Your task to perform on an android device: Show me productivity apps on the Play Store Image 0: 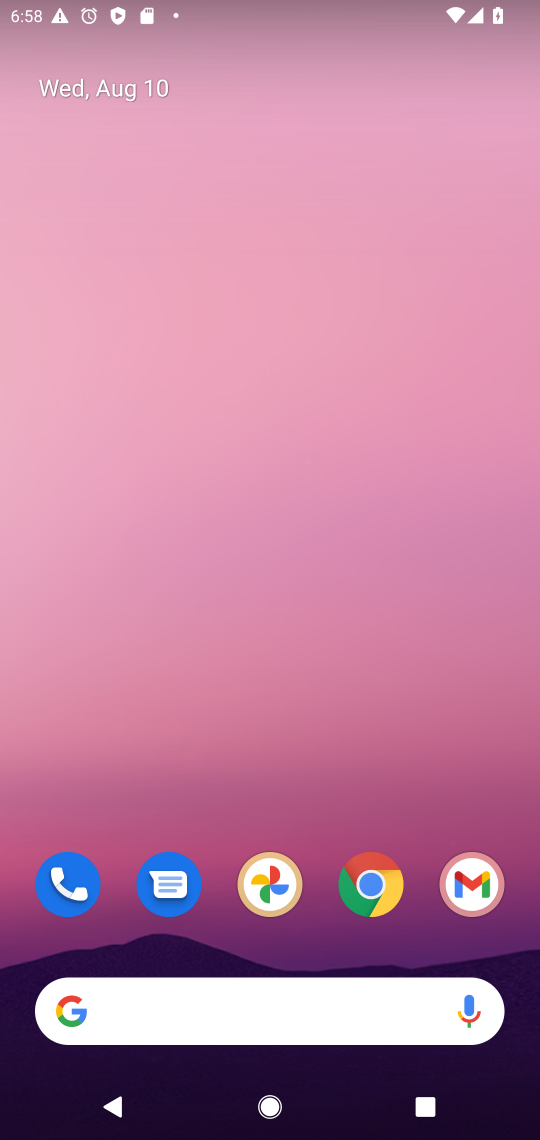
Step 0: drag from (75, 1089) to (404, 218)
Your task to perform on an android device: Show me productivity apps on the Play Store Image 1: 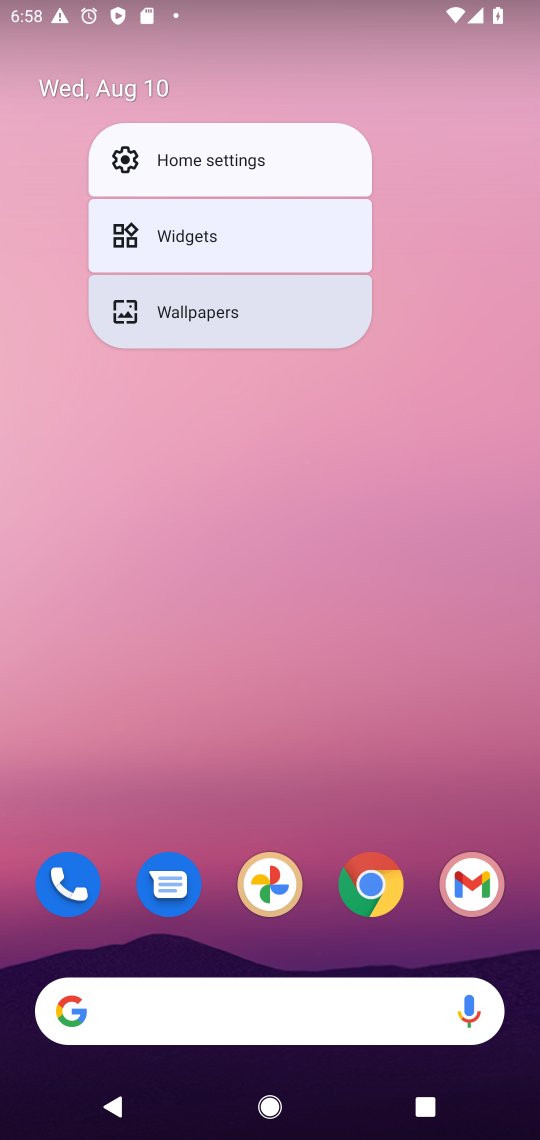
Step 1: drag from (39, 1061) to (452, 138)
Your task to perform on an android device: Show me productivity apps on the Play Store Image 2: 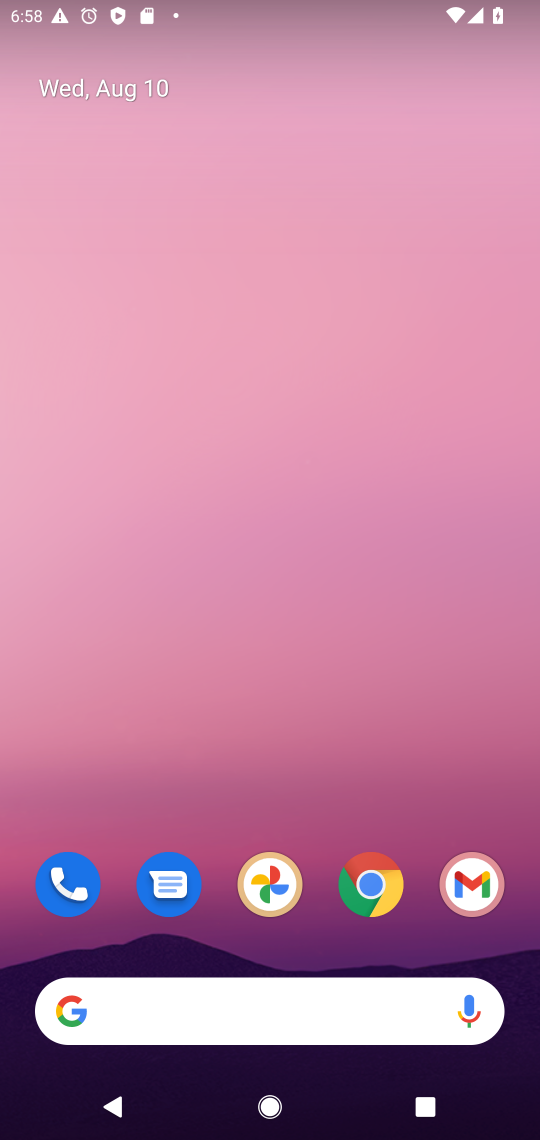
Step 2: drag from (45, 1090) to (350, 226)
Your task to perform on an android device: Show me productivity apps on the Play Store Image 3: 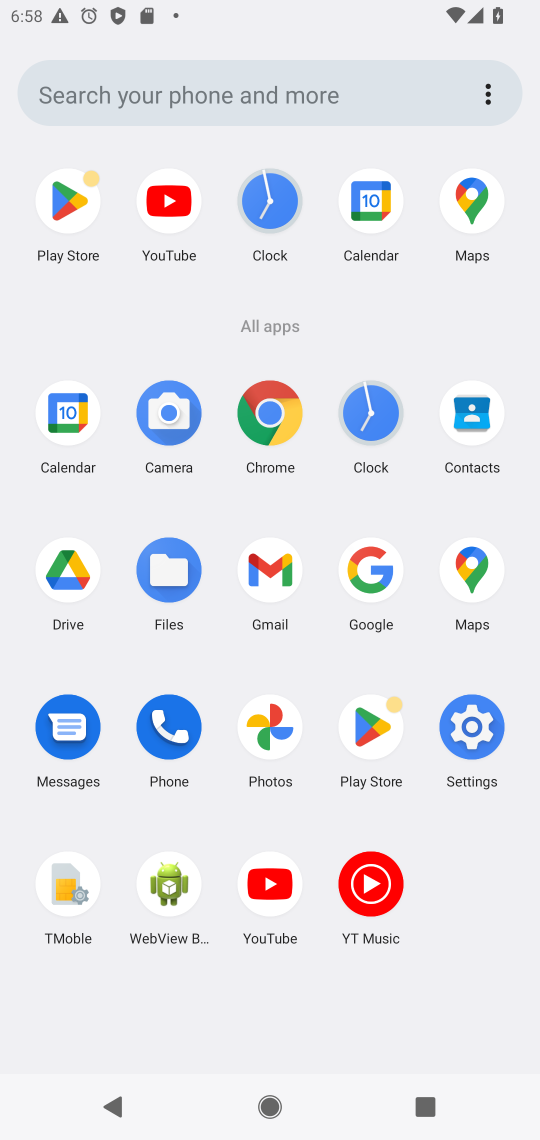
Step 3: click (71, 205)
Your task to perform on an android device: Show me productivity apps on the Play Store Image 4: 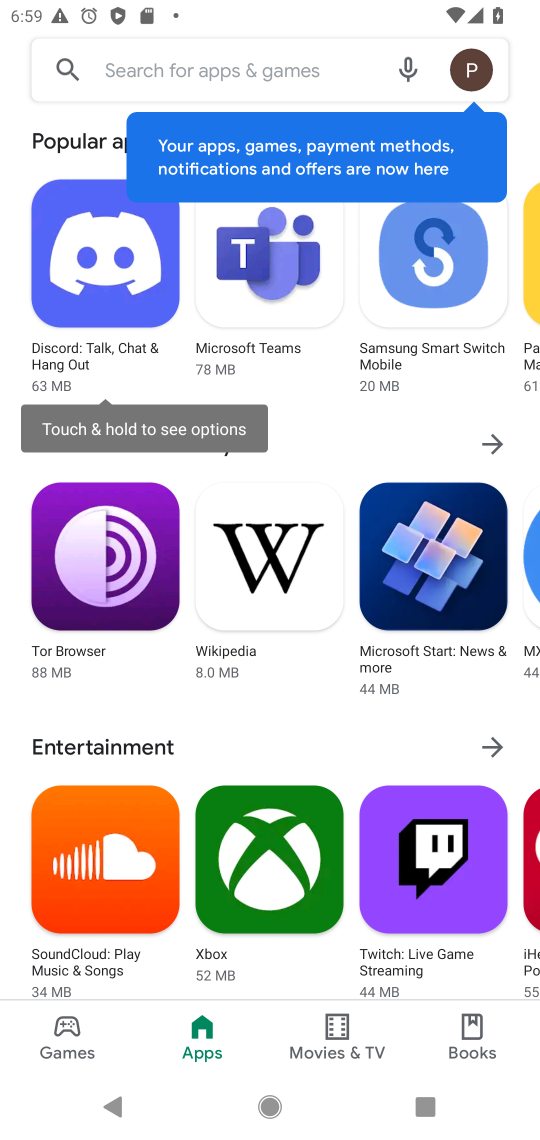
Step 4: click (134, 56)
Your task to perform on an android device: Show me productivity apps on the Play Store Image 5: 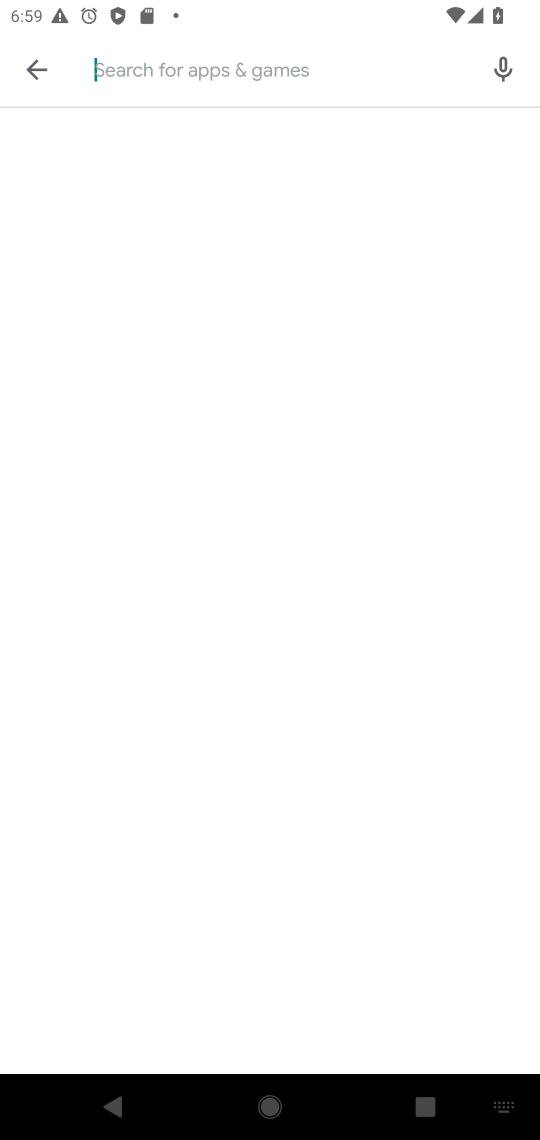
Step 5: type "productivity apps"
Your task to perform on an android device: Show me productivity apps on the Play Store Image 6: 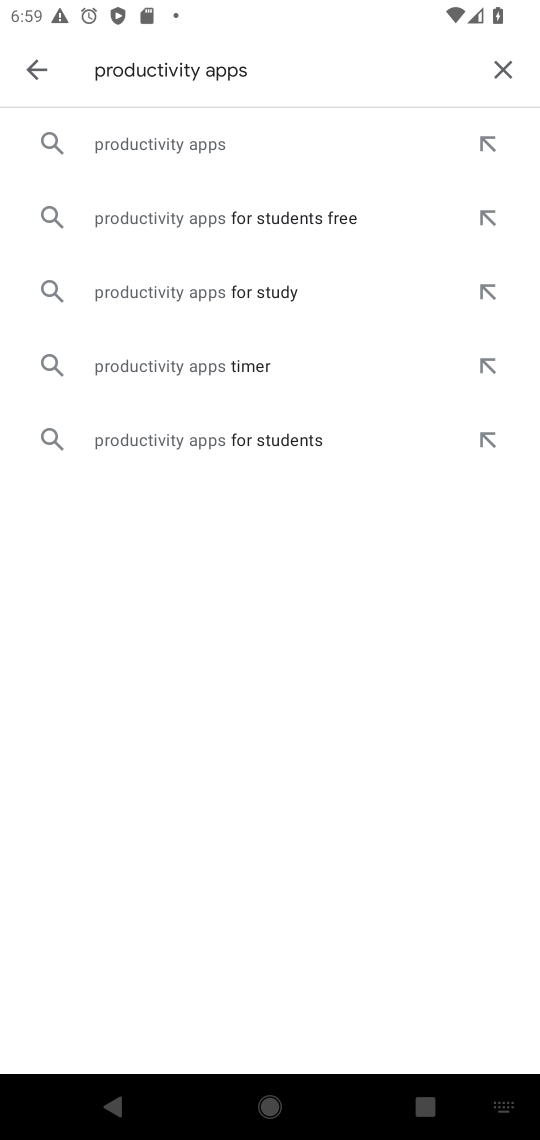
Step 6: click (214, 139)
Your task to perform on an android device: Show me productivity apps on the Play Store Image 7: 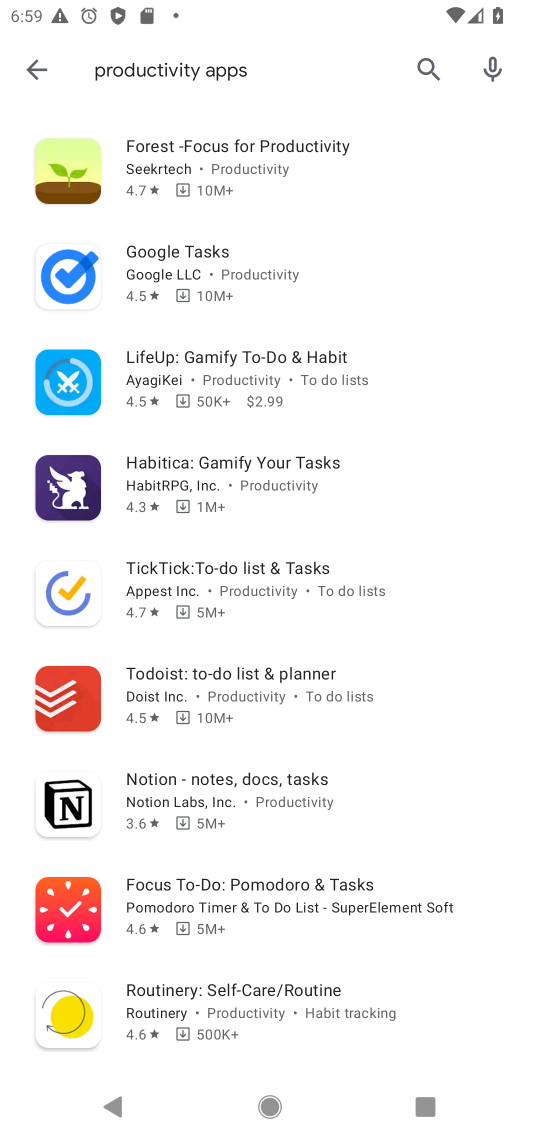
Step 7: task complete